Your task to perform on an android device: allow notifications from all sites in the chrome app Image 0: 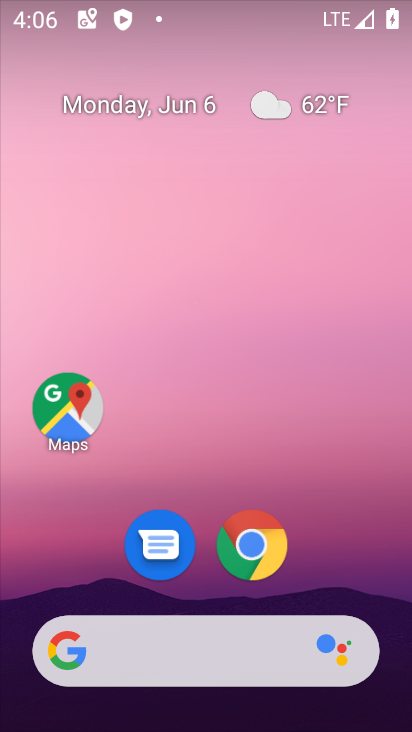
Step 0: click (251, 549)
Your task to perform on an android device: allow notifications from all sites in the chrome app Image 1: 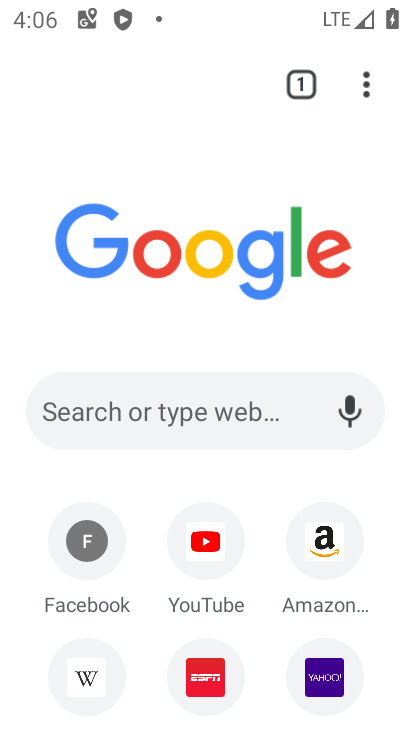
Step 1: click (367, 92)
Your task to perform on an android device: allow notifications from all sites in the chrome app Image 2: 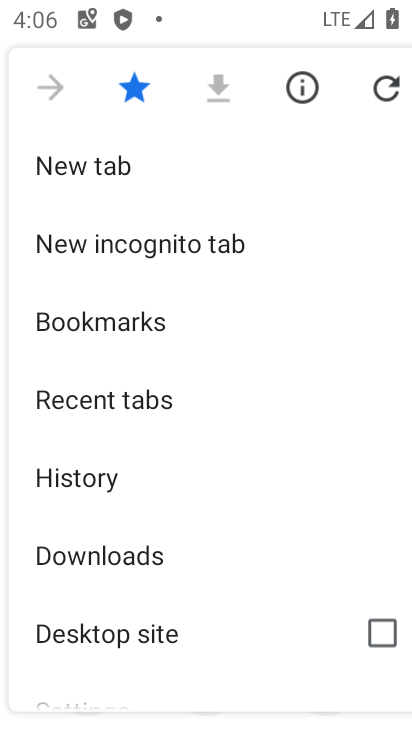
Step 2: drag from (110, 682) to (101, 252)
Your task to perform on an android device: allow notifications from all sites in the chrome app Image 3: 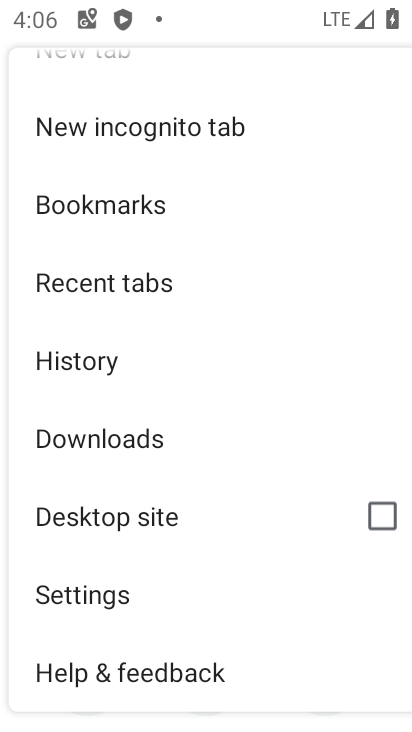
Step 3: click (92, 595)
Your task to perform on an android device: allow notifications from all sites in the chrome app Image 4: 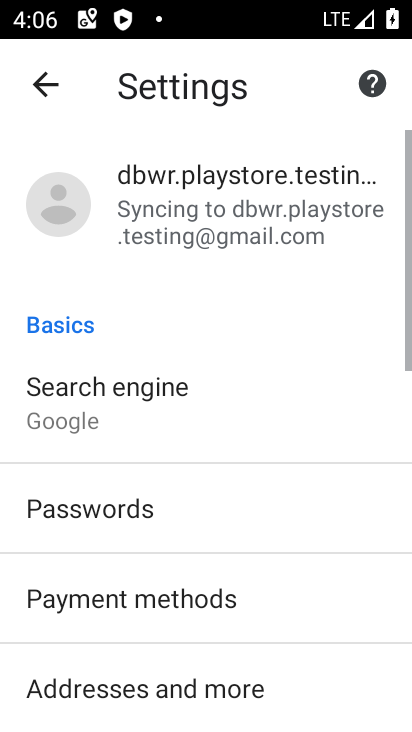
Step 4: drag from (131, 681) to (132, 218)
Your task to perform on an android device: allow notifications from all sites in the chrome app Image 5: 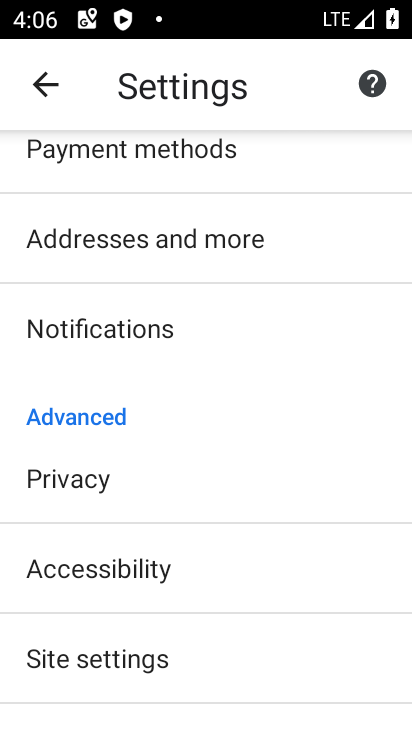
Step 5: click (107, 647)
Your task to perform on an android device: allow notifications from all sites in the chrome app Image 6: 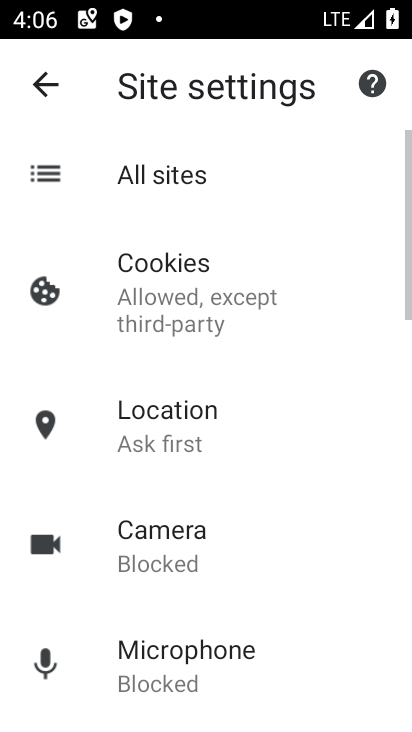
Step 6: drag from (158, 637) to (155, 286)
Your task to perform on an android device: allow notifications from all sites in the chrome app Image 7: 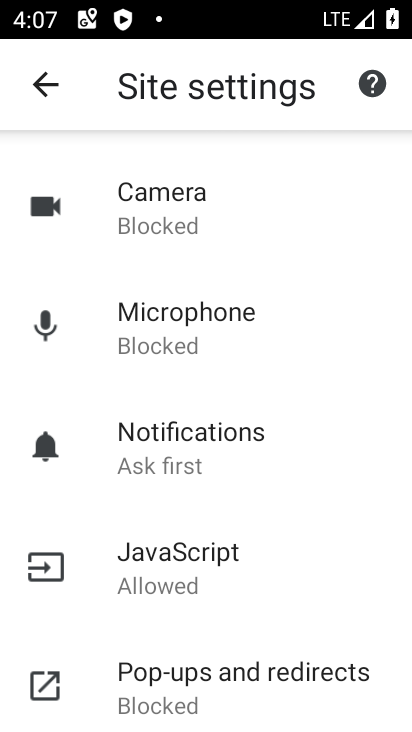
Step 7: click (163, 431)
Your task to perform on an android device: allow notifications from all sites in the chrome app Image 8: 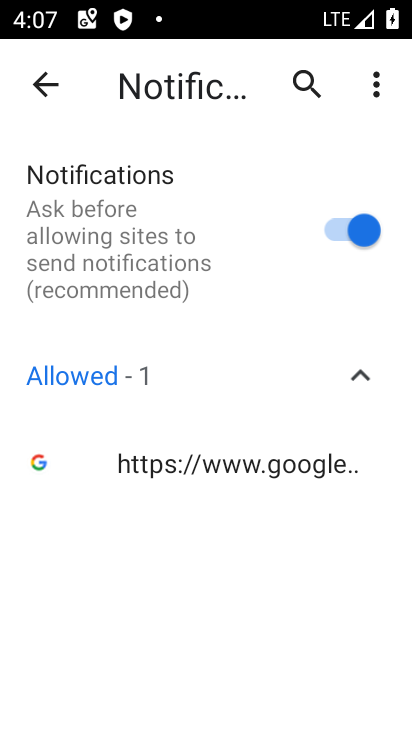
Step 8: task complete